Your task to perform on an android device: Open my contact list Image 0: 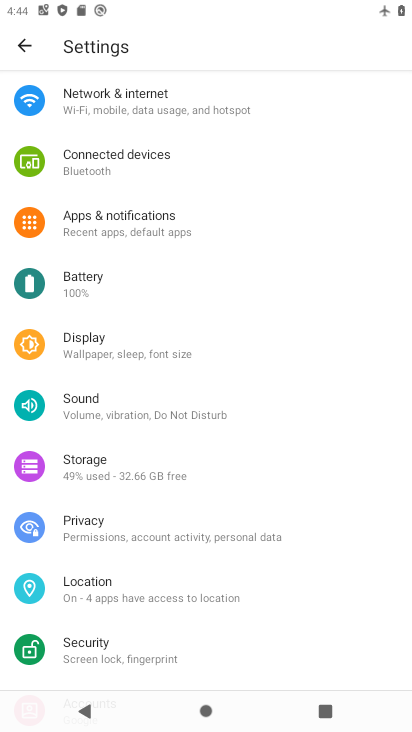
Step 0: press back button
Your task to perform on an android device: Open my contact list Image 1: 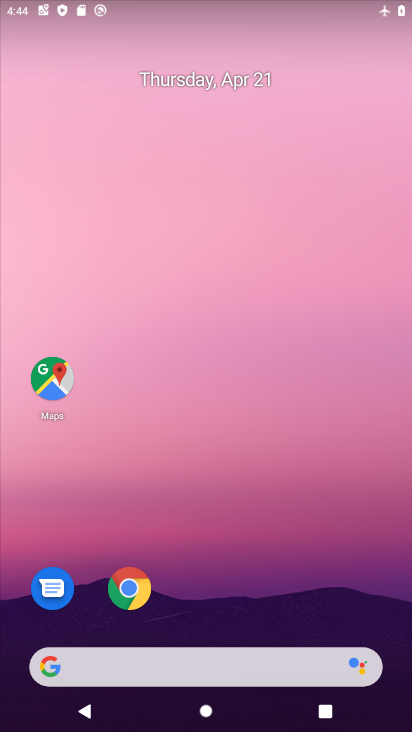
Step 1: drag from (200, 600) to (319, 77)
Your task to perform on an android device: Open my contact list Image 2: 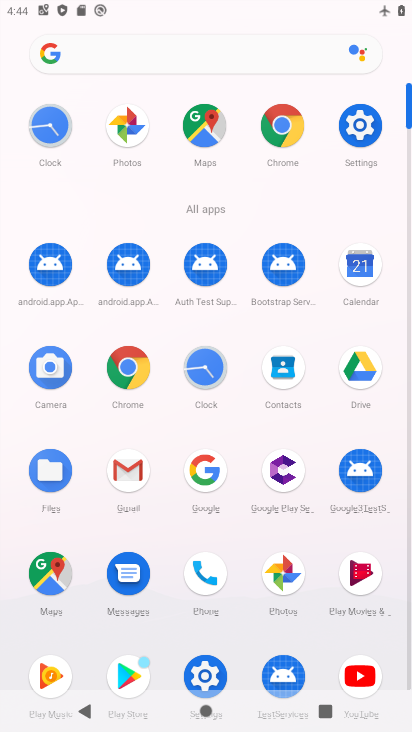
Step 2: click (279, 364)
Your task to perform on an android device: Open my contact list Image 3: 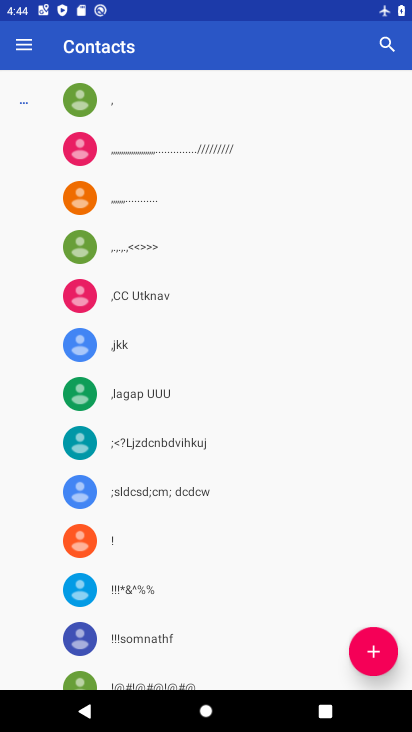
Step 3: task complete